Your task to perform on an android device: Go to calendar. Show me events next week Image 0: 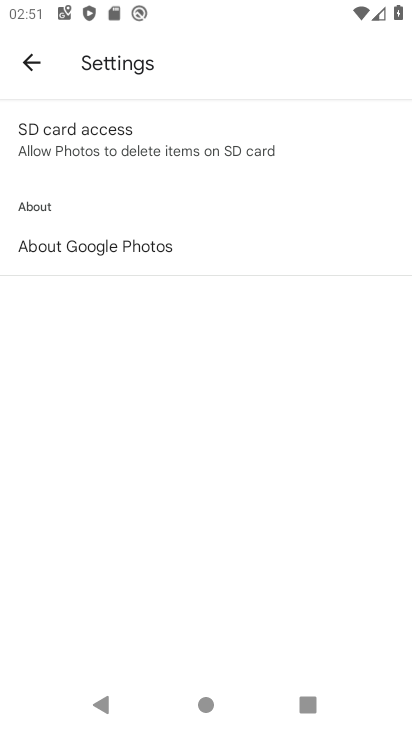
Step 0: press home button
Your task to perform on an android device: Go to calendar. Show me events next week Image 1: 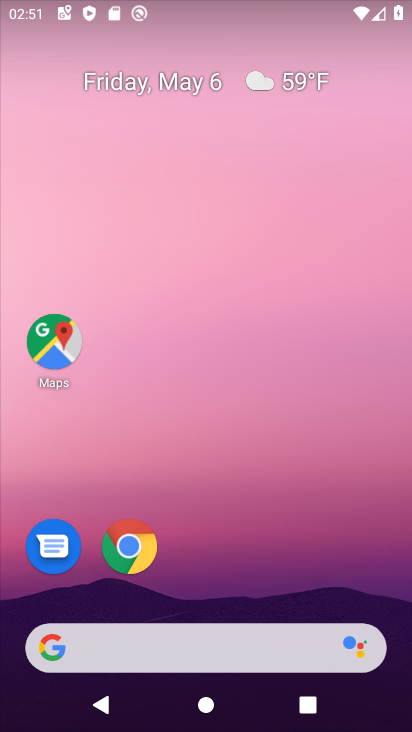
Step 1: drag from (238, 599) to (277, 134)
Your task to perform on an android device: Go to calendar. Show me events next week Image 2: 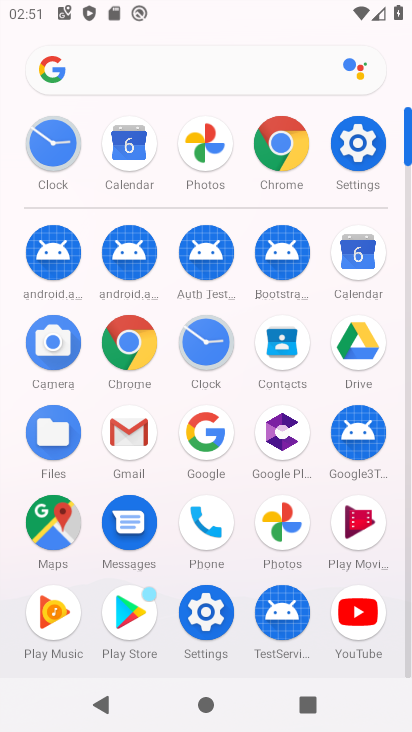
Step 2: click (348, 263)
Your task to perform on an android device: Go to calendar. Show me events next week Image 3: 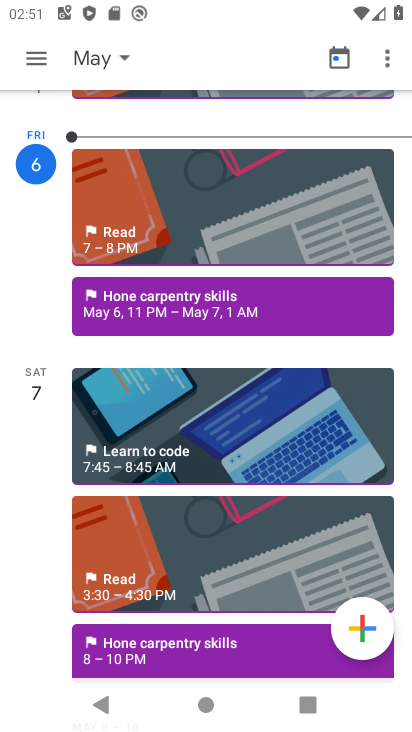
Step 3: click (107, 55)
Your task to perform on an android device: Go to calendar. Show me events next week Image 4: 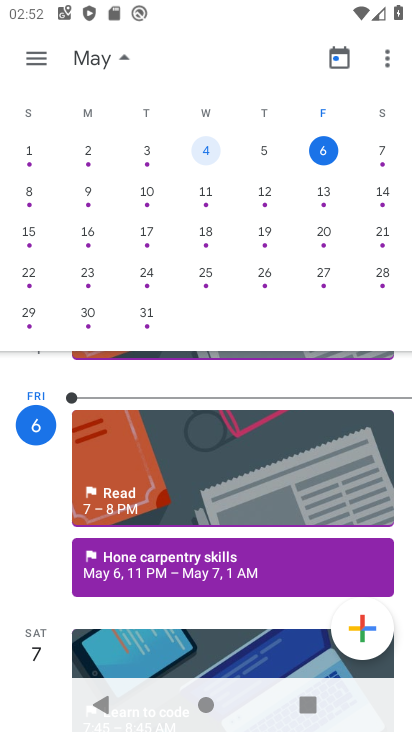
Step 4: click (90, 192)
Your task to perform on an android device: Go to calendar. Show me events next week Image 5: 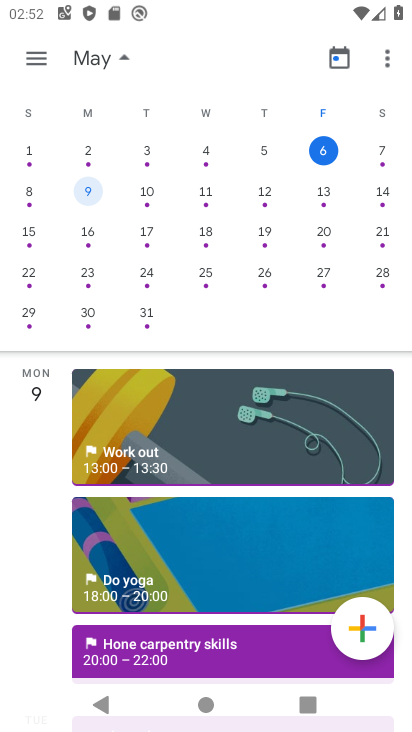
Step 5: task complete